Your task to perform on an android device: Search for pizza restaurants on Maps Image 0: 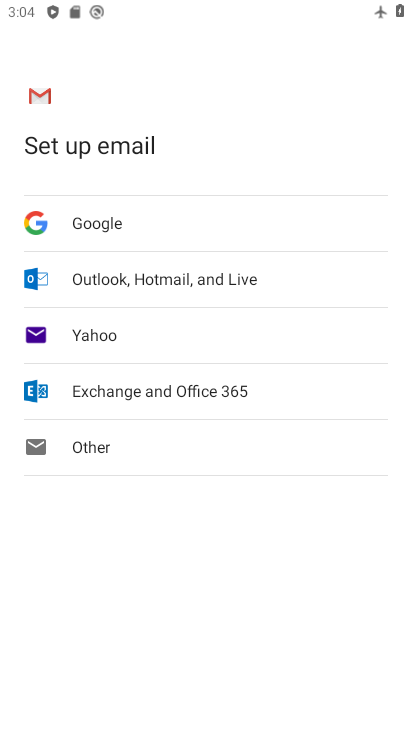
Step 0: press home button
Your task to perform on an android device: Search for pizza restaurants on Maps Image 1: 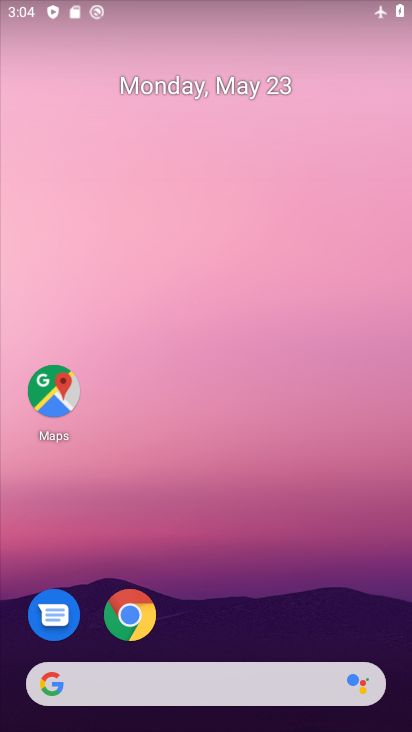
Step 1: click (58, 382)
Your task to perform on an android device: Search for pizza restaurants on Maps Image 2: 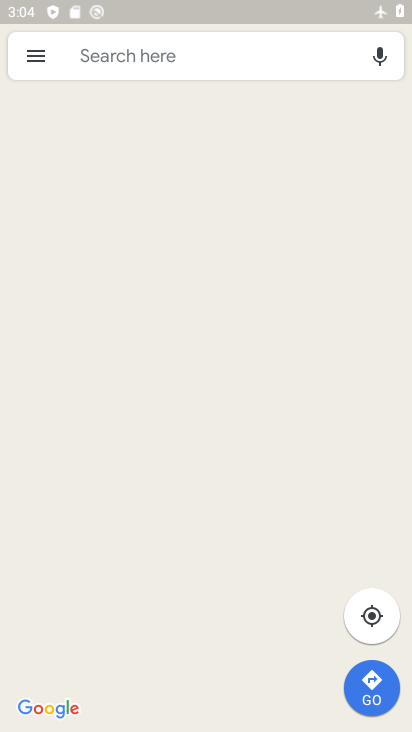
Step 2: click (207, 52)
Your task to perform on an android device: Search for pizza restaurants on Maps Image 3: 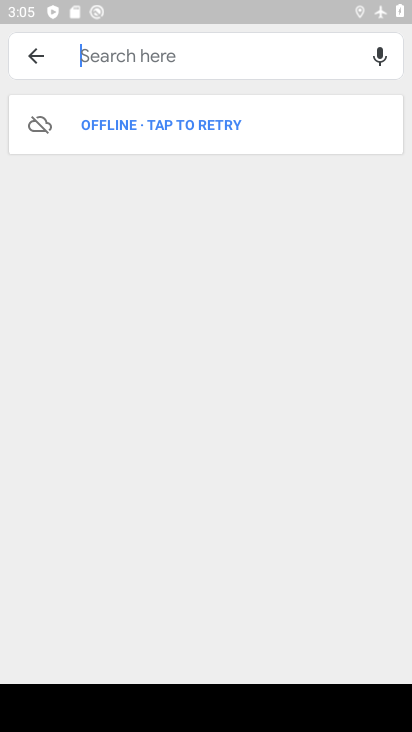
Step 3: click (219, 36)
Your task to perform on an android device: Search for pizza restaurants on Maps Image 4: 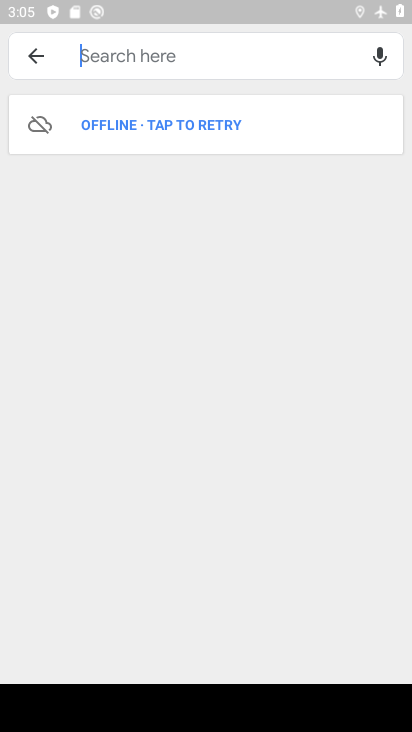
Step 4: type " pizza restaurants"
Your task to perform on an android device: Search for pizza restaurants on Maps Image 5: 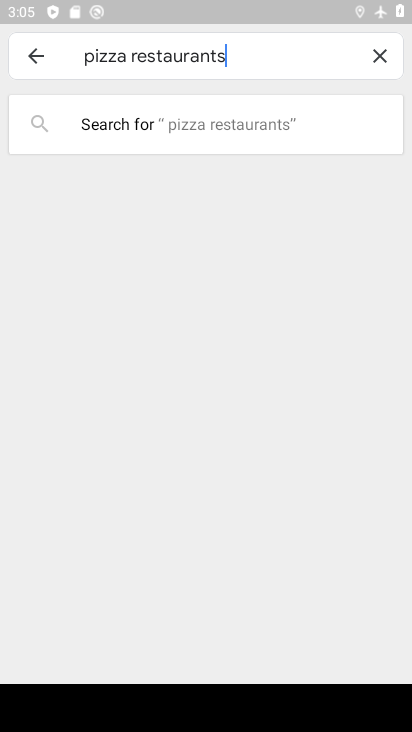
Step 5: click (258, 120)
Your task to perform on an android device: Search for pizza restaurants on Maps Image 6: 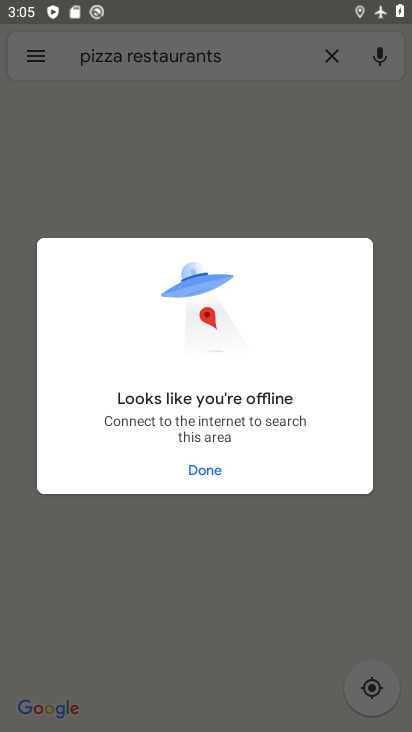
Step 6: task complete